Your task to perform on an android device: turn off data saver in the chrome app Image 0: 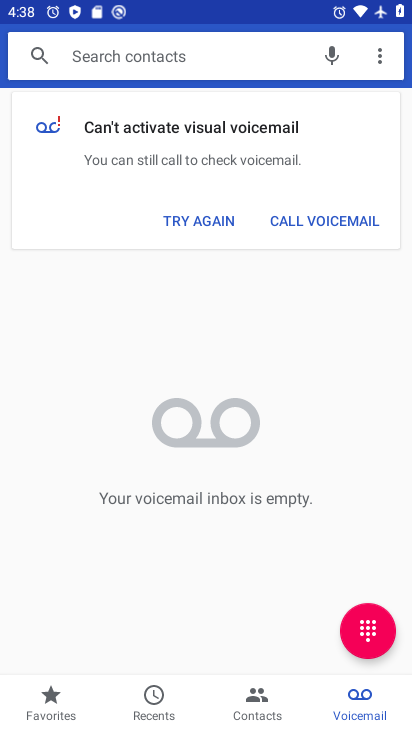
Step 0: press back button
Your task to perform on an android device: turn off data saver in the chrome app Image 1: 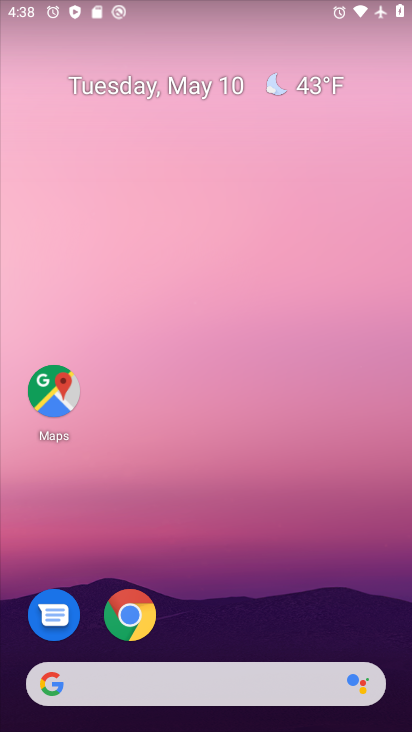
Step 1: drag from (278, 537) to (278, 34)
Your task to perform on an android device: turn off data saver in the chrome app Image 2: 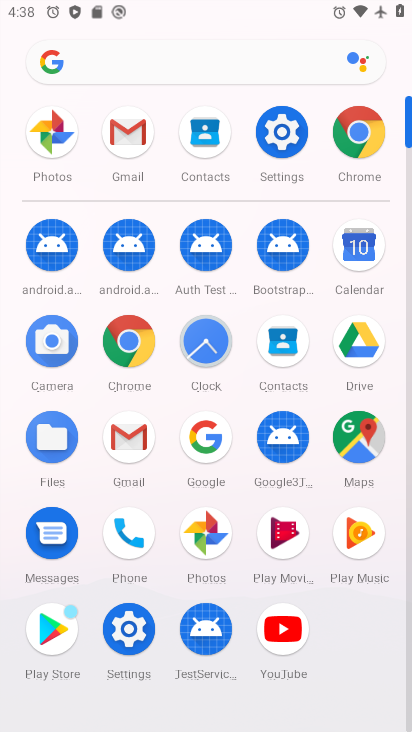
Step 2: click (126, 336)
Your task to perform on an android device: turn off data saver in the chrome app Image 3: 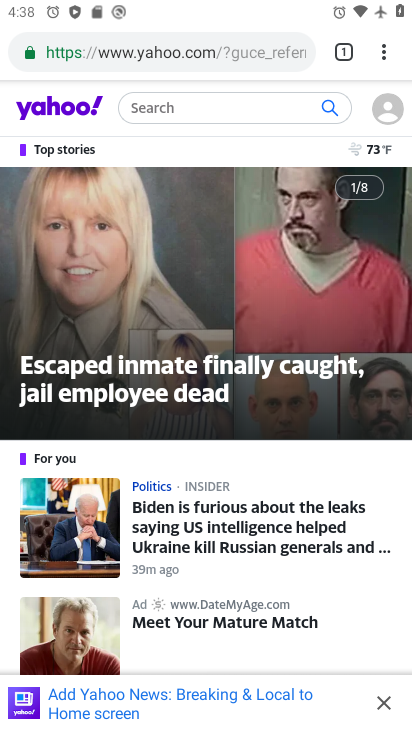
Step 3: drag from (385, 52) to (212, 656)
Your task to perform on an android device: turn off data saver in the chrome app Image 4: 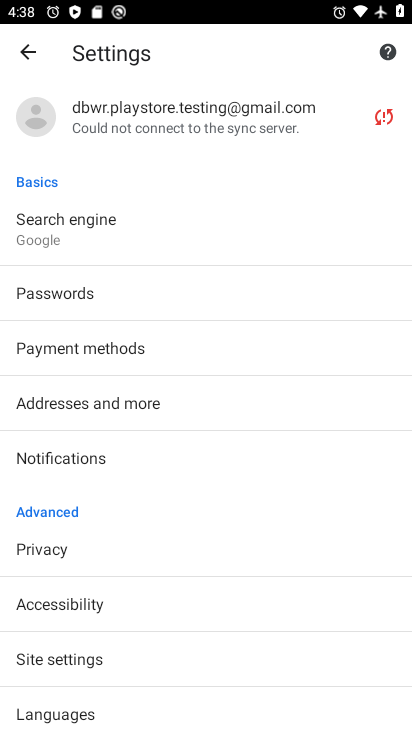
Step 4: drag from (184, 571) to (239, 159)
Your task to perform on an android device: turn off data saver in the chrome app Image 5: 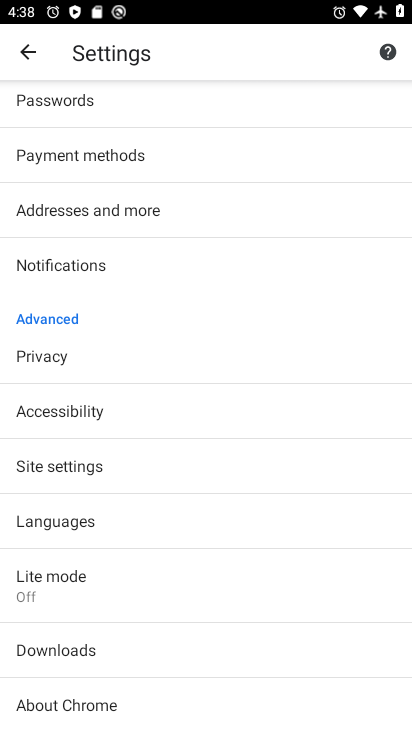
Step 5: drag from (278, 579) to (309, 186)
Your task to perform on an android device: turn off data saver in the chrome app Image 6: 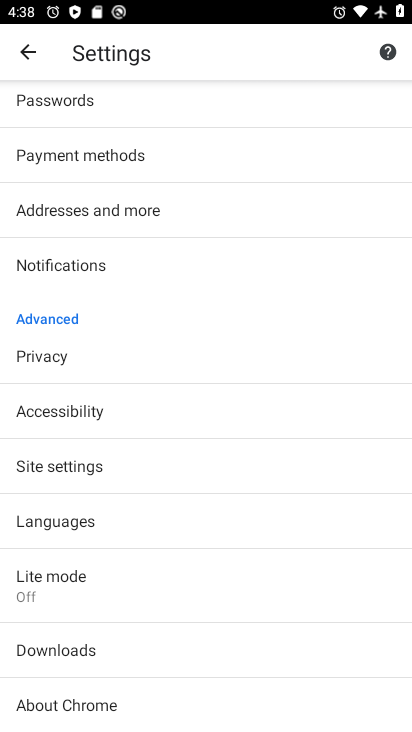
Step 6: click (90, 584)
Your task to perform on an android device: turn off data saver in the chrome app Image 7: 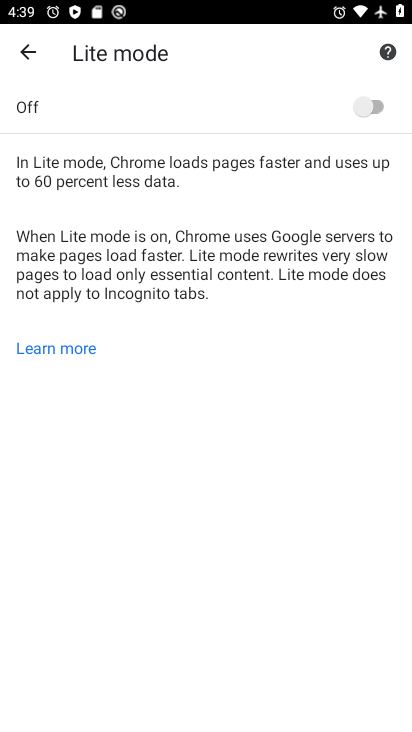
Step 7: task complete